Your task to perform on an android device: Go to privacy settings Image 0: 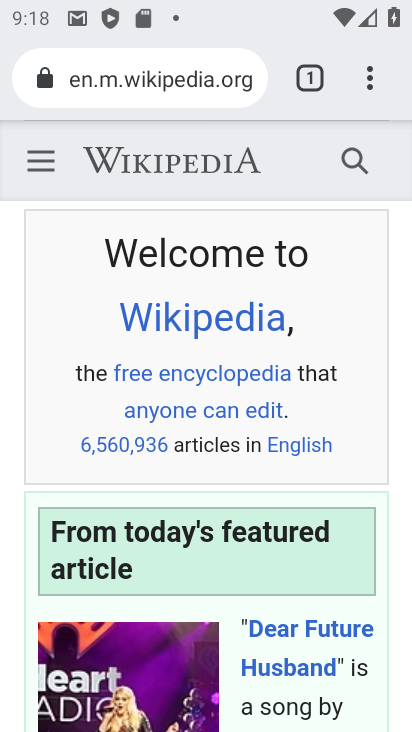
Step 0: press home button
Your task to perform on an android device: Go to privacy settings Image 1: 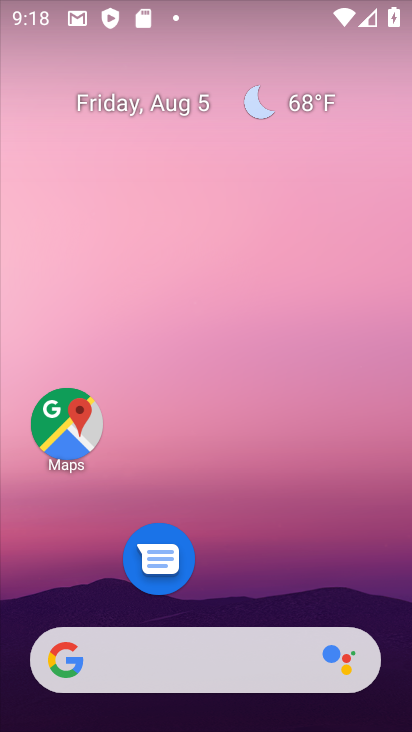
Step 1: drag from (217, 607) to (233, 129)
Your task to perform on an android device: Go to privacy settings Image 2: 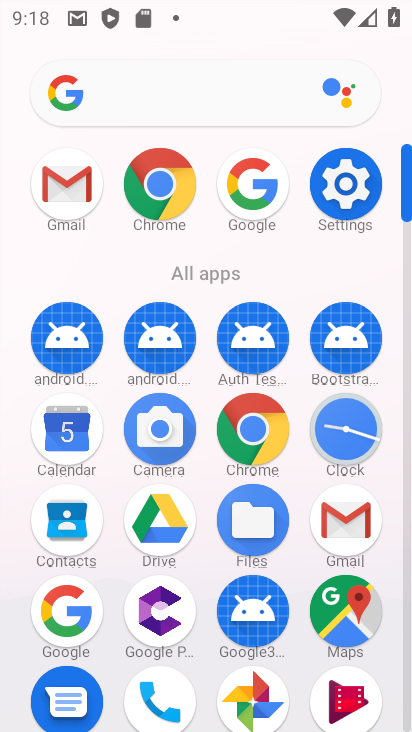
Step 2: click (346, 195)
Your task to perform on an android device: Go to privacy settings Image 3: 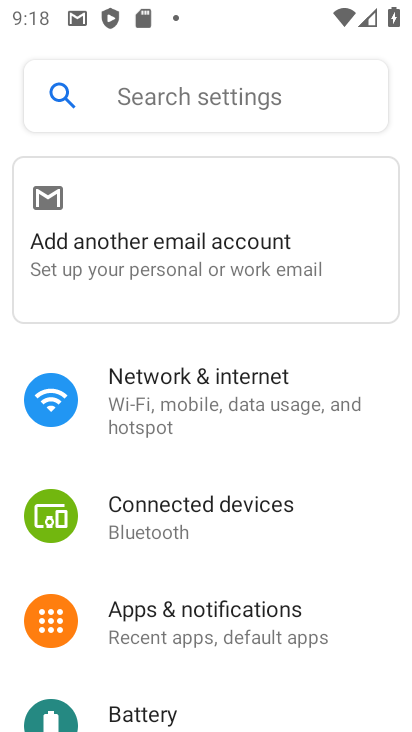
Step 3: drag from (186, 629) to (174, 288)
Your task to perform on an android device: Go to privacy settings Image 4: 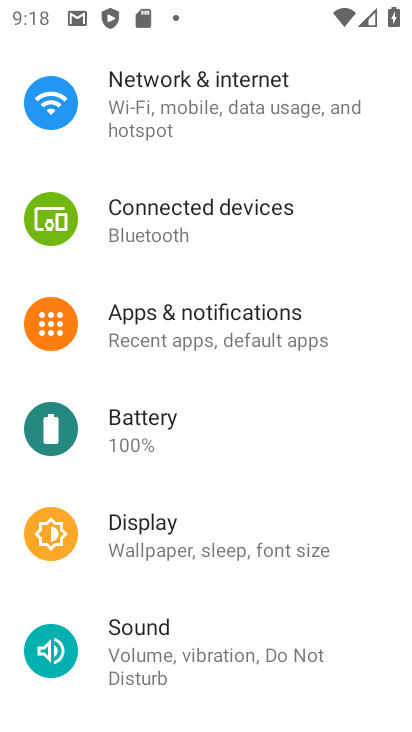
Step 4: drag from (117, 633) to (129, 283)
Your task to perform on an android device: Go to privacy settings Image 5: 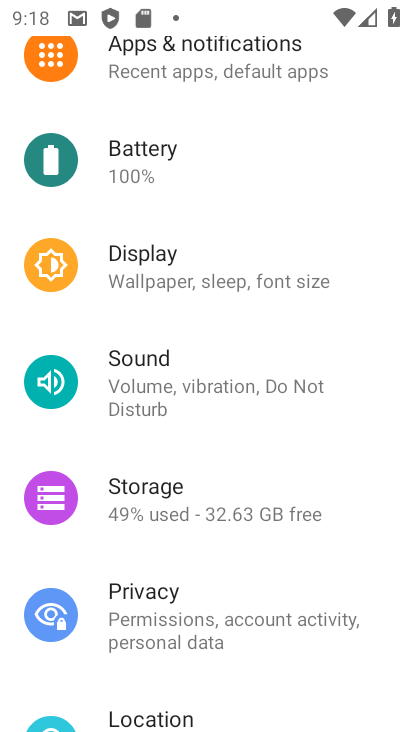
Step 5: click (176, 607)
Your task to perform on an android device: Go to privacy settings Image 6: 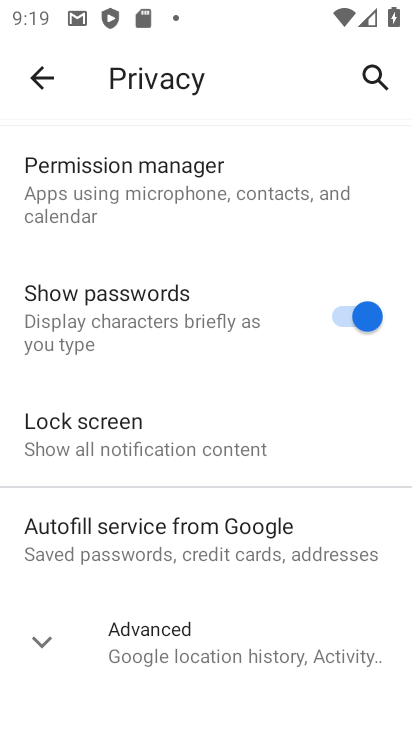
Step 6: task complete